Your task to perform on an android device: add a label to a message in the gmail app Image 0: 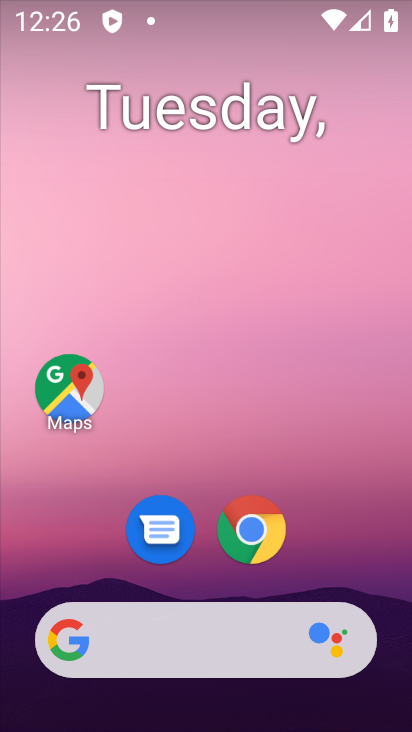
Step 0: drag from (343, 587) to (260, 22)
Your task to perform on an android device: add a label to a message in the gmail app Image 1: 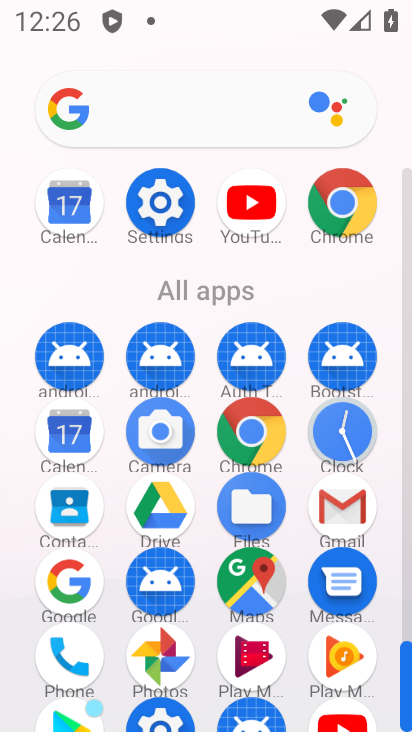
Step 1: click (346, 507)
Your task to perform on an android device: add a label to a message in the gmail app Image 2: 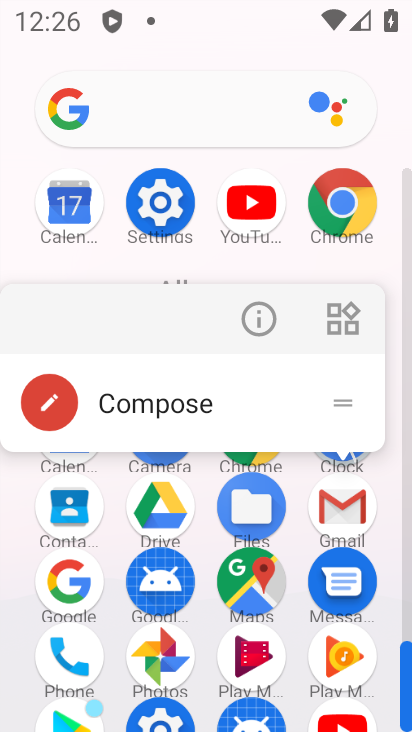
Step 2: click (348, 506)
Your task to perform on an android device: add a label to a message in the gmail app Image 3: 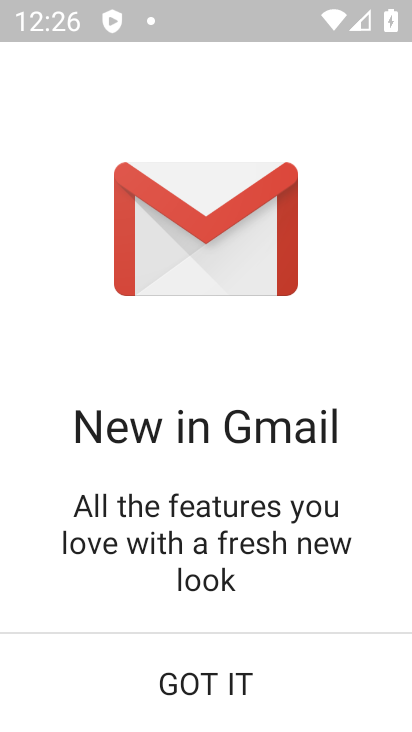
Step 3: click (205, 699)
Your task to perform on an android device: add a label to a message in the gmail app Image 4: 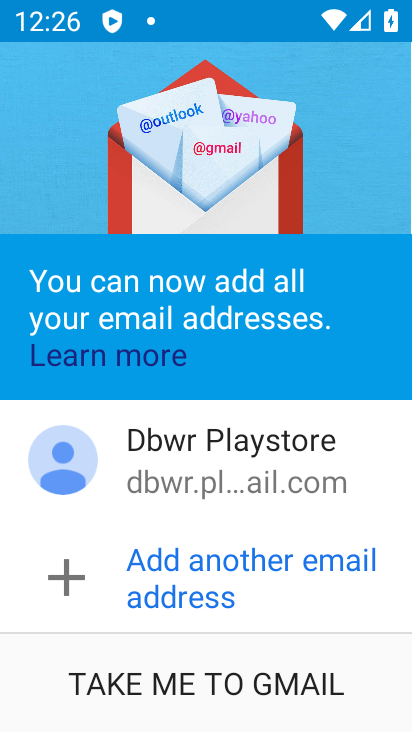
Step 4: click (205, 699)
Your task to perform on an android device: add a label to a message in the gmail app Image 5: 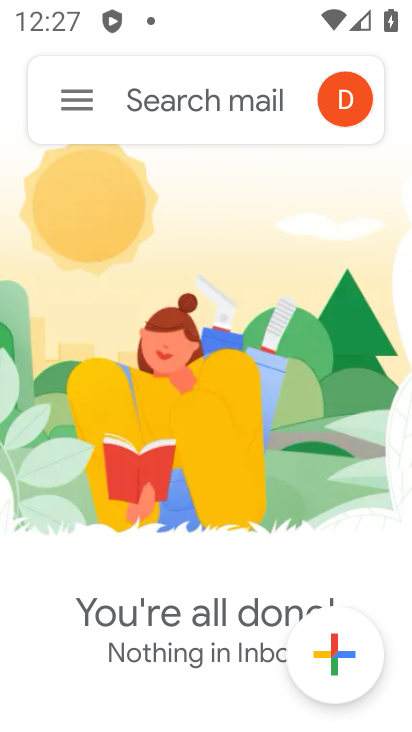
Step 5: task complete